Your task to perform on an android device: Do I have any events this weekend? Image 0: 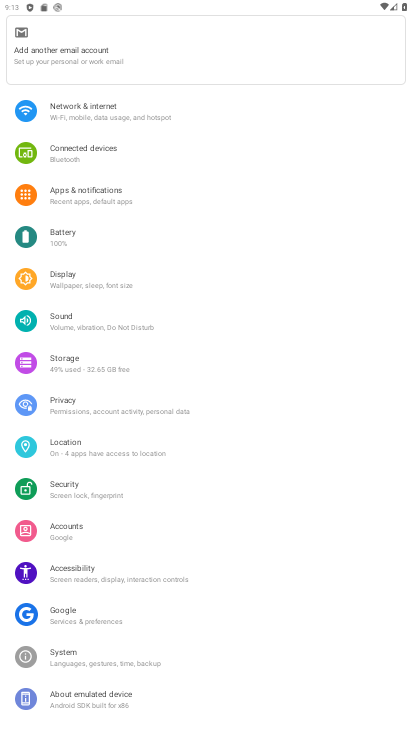
Step 0: press home button
Your task to perform on an android device: Do I have any events this weekend? Image 1: 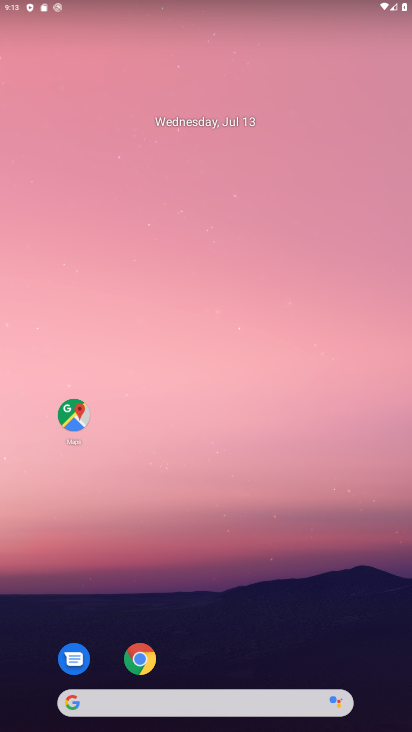
Step 1: drag from (372, 646) to (313, 151)
Your task to perform on an android device: Do I have any events this weekend? Image 2: 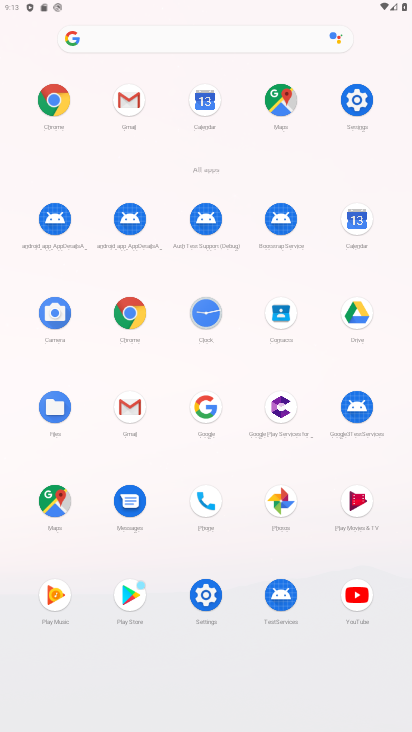
Step 2: click (357, 222)
Your task to perform on an android device: Do I have any events this weekend? Image 3: 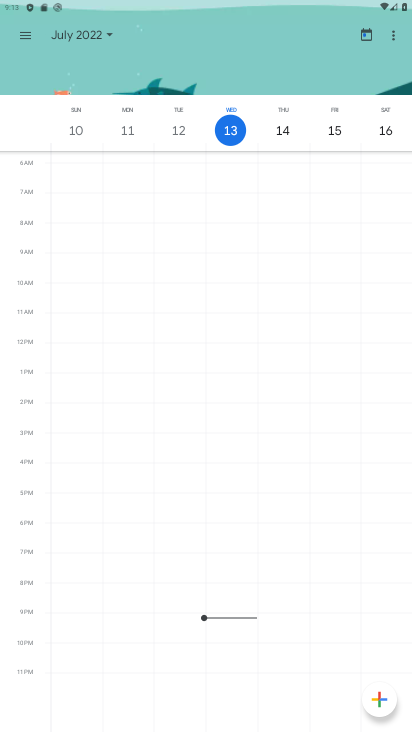
Step 3: task complete